Your task to perform on an android device: find photos in the google photos app Image 0: 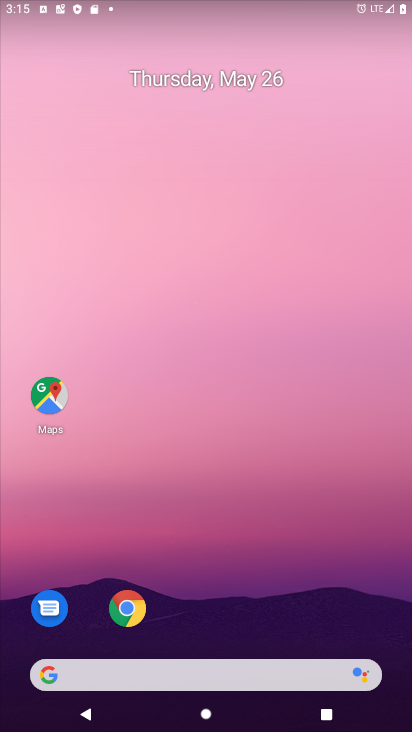
Step 0: drag from (364, 615) to (271, 78)
Your task to perform on an android device: find photos in the google photos app Image 1: 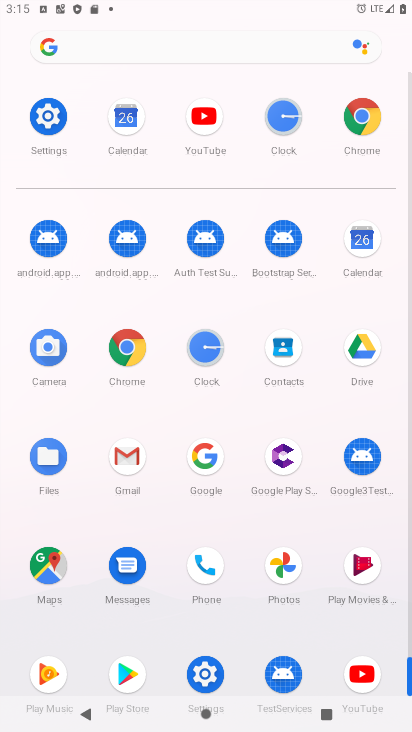
Step 1: click (282, 560)
Your task to perform on an android device: find photos in the google photos app Image 2: 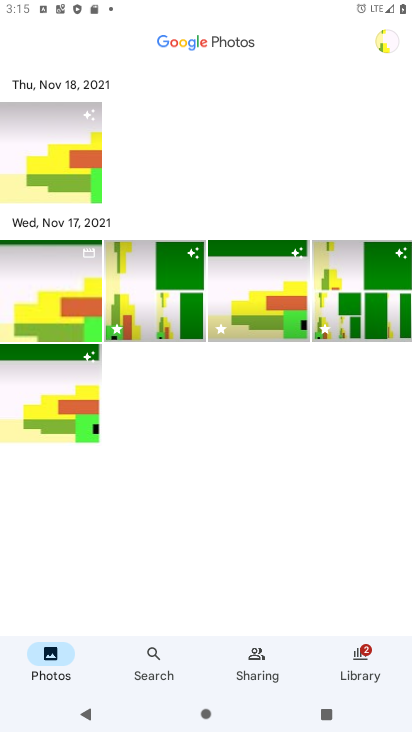
Step 2: task complete